Your task to perform on an android device: toggle pop-ups in chrome Image 0: 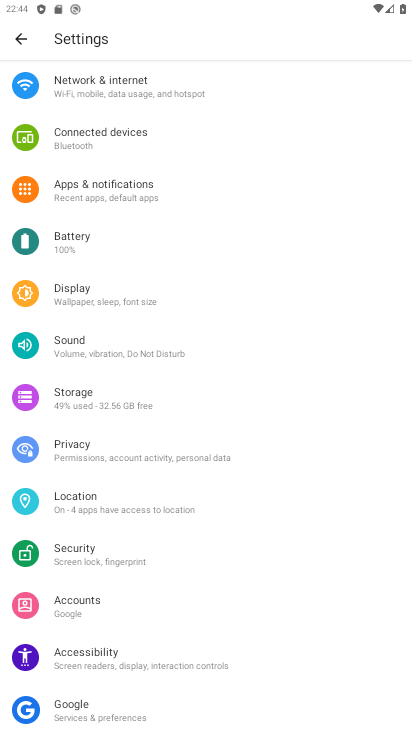
Step 0: press home button
Your task to perform on an android device: toggle pop-ups in chrome Image 1: 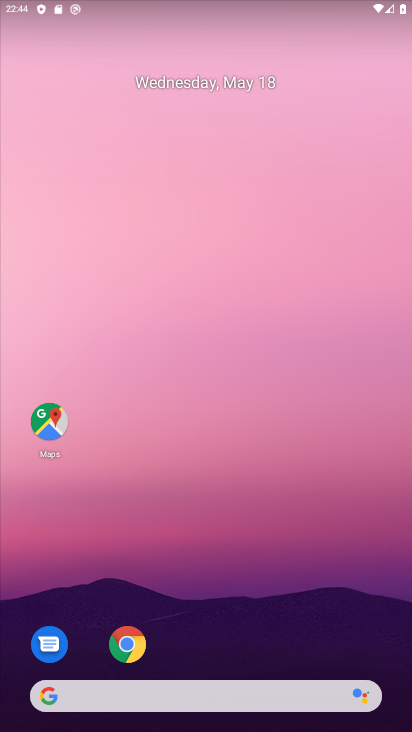
Step 1: click (133, 648)
Your task to perform on an android device: toggle pop-ups in chrome Image 2: 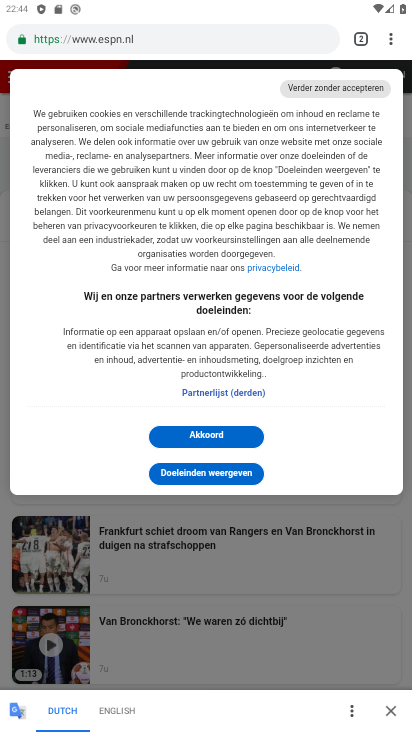
Step 2: drag from (393, 34) to (258, 469)
Your task to perform on an android device: toggle pop-ups in chrome Image 3: 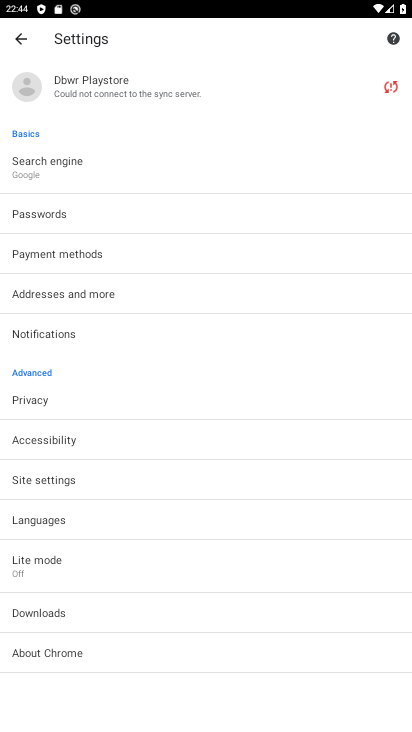
Step 3: drag from (146, 557) to (226, 205)
Your task to perform on an android device: toggle pop-ups in chrome Image 4: 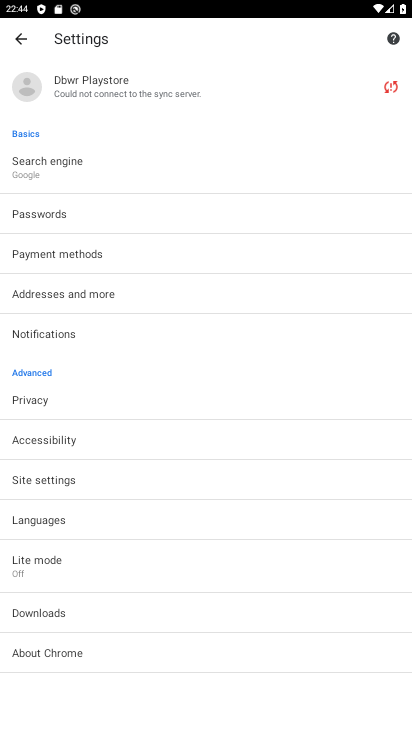
Step 4: drag from (155, 645) to (224, 351)
Your task to perform on an android device: toggle pop-ups in chrome Image 5: 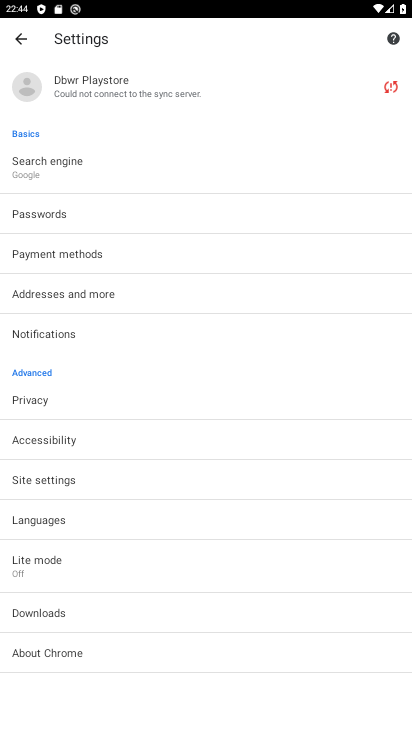
Step 5: click (89, 484)
Your task to perform on an android device: toggle pop-ups in chrome Image 6: 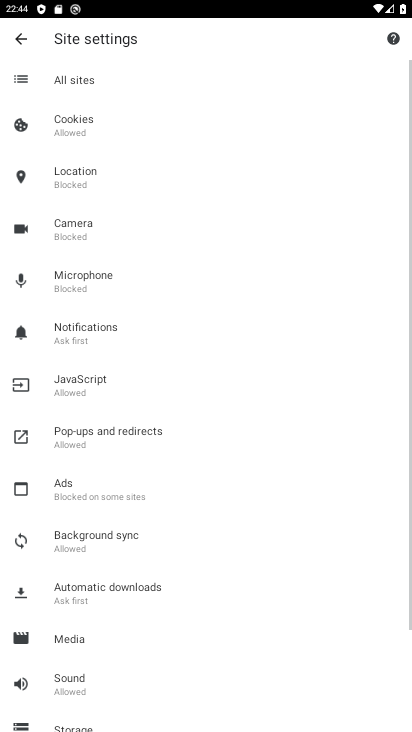
Step 6: drag from (197, 517) to (214, 178)
Your task to perform on an android device: toggle pop-ups in chrome Image 7: 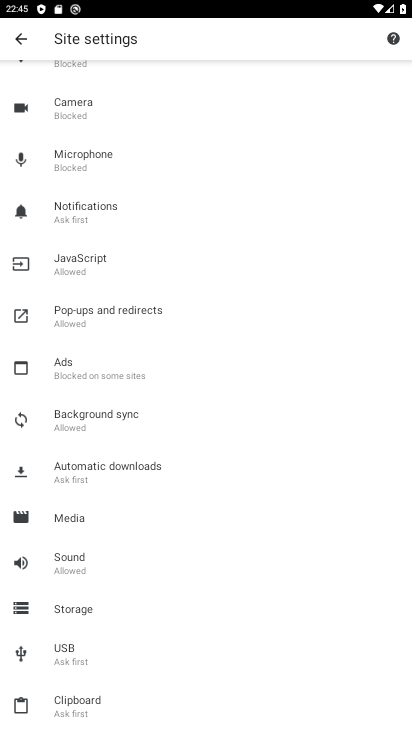
Step 7: click (156, 320)
Your task to perform on an android device: toggle pop-ups in chrome Image 8: 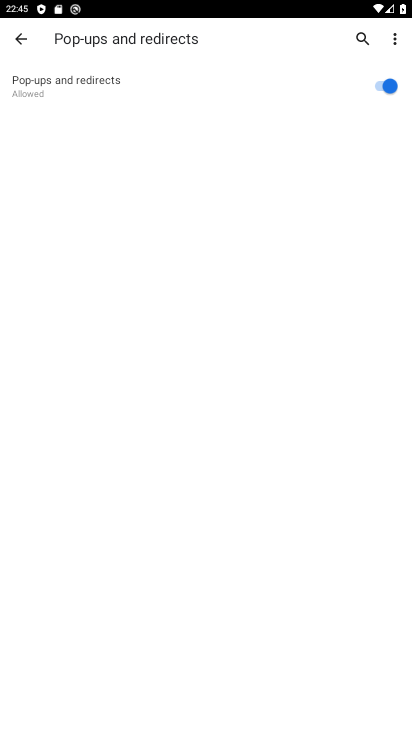
Step 8: click (370, 79)
Your task to perform on an android device: toggle pop-ups in chrome Image 9: 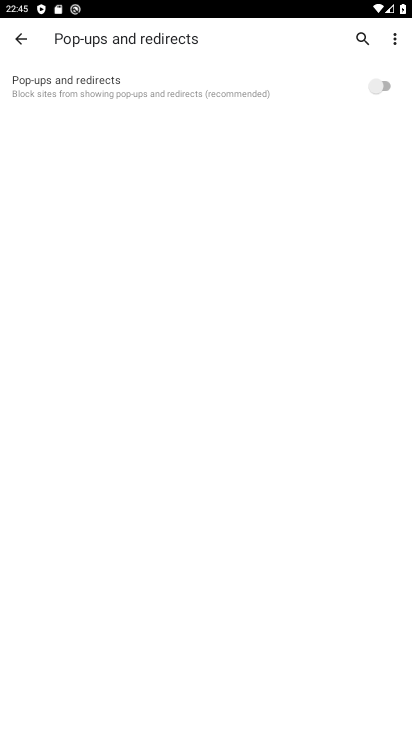
Step 9: task complete